Your task to perform on an android device: Open settings on Google Maps Image 0: 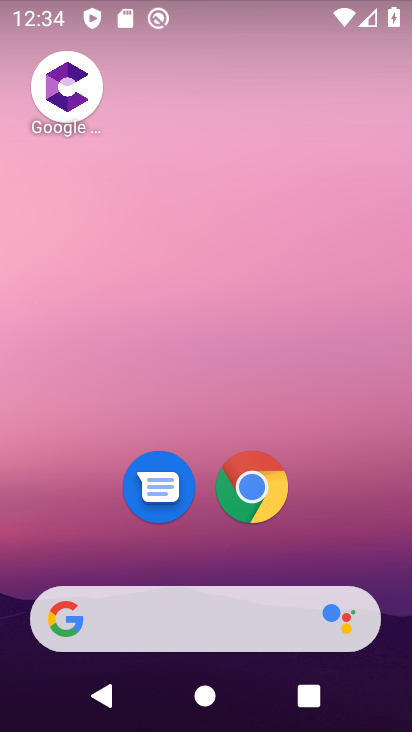
Step 0: drag from (199, 600) to (228, 121)
Your task to perform on an android device: Open settings on Google Maps Image 1: 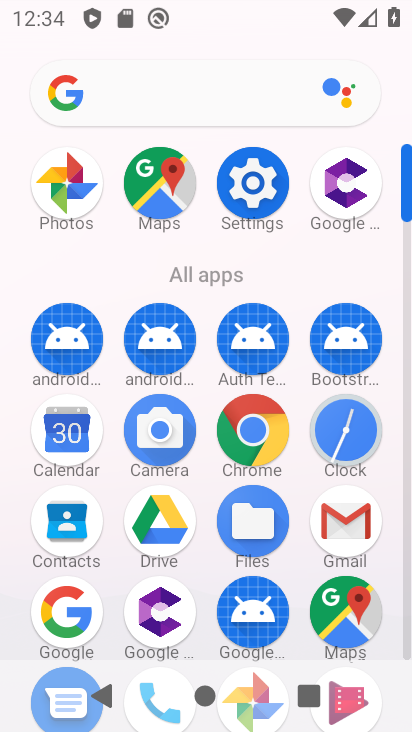
Step 1: click (162, 187)
Your task to perform on an android device: Open settings on Google Maps Image 2: 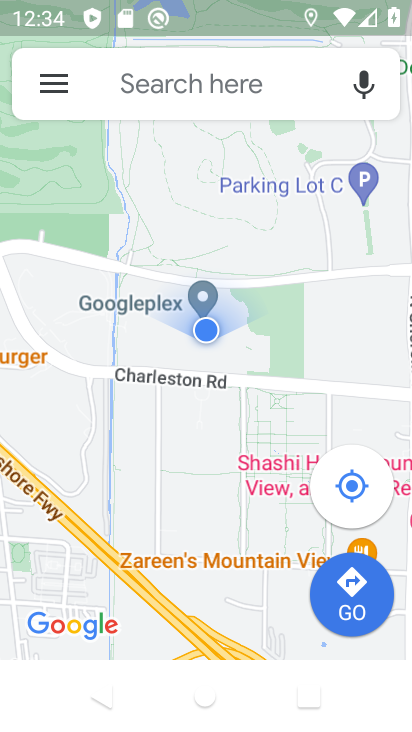
Step 2: click (43, 93)
Your task to perform on an android device: Open settings on Google Maps Image 3: 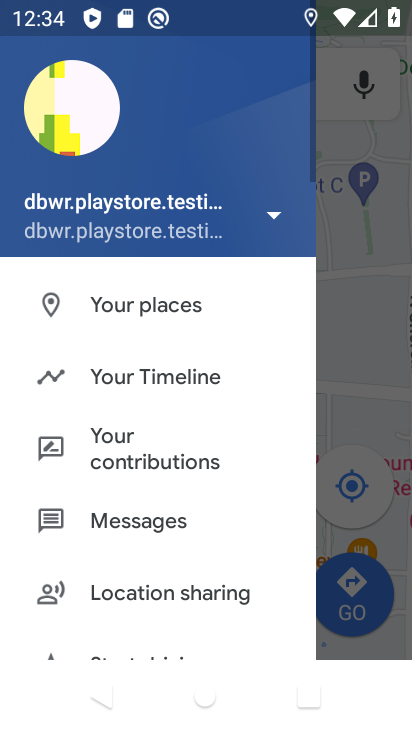
Step 3: drag from (153, 528) to (3, 347)
Your task to perform on an android device: Open settings on Google Maps Image 4: 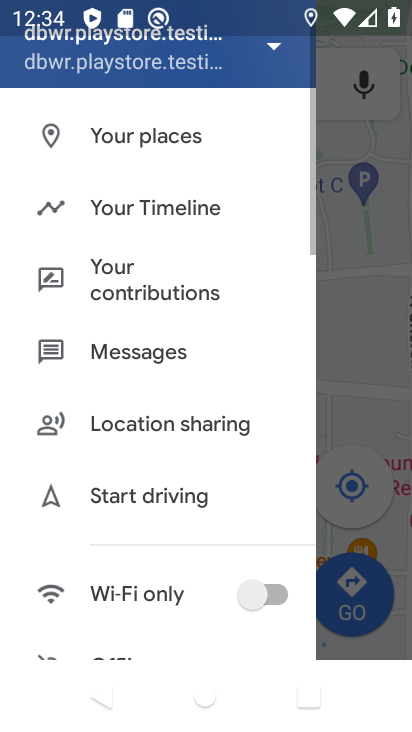
Step 4: drag from (111, 584) to (108, 8)
Your task to perform on an android device: Open settings on Google Maps Image 5: 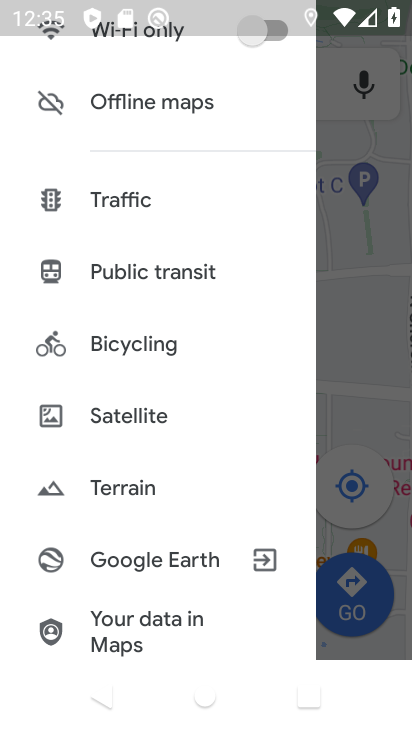
Step 5: drag from (123, 618) to (163, 3)
Your task to perform on an android device: Open settings on Google Maps Image 6: 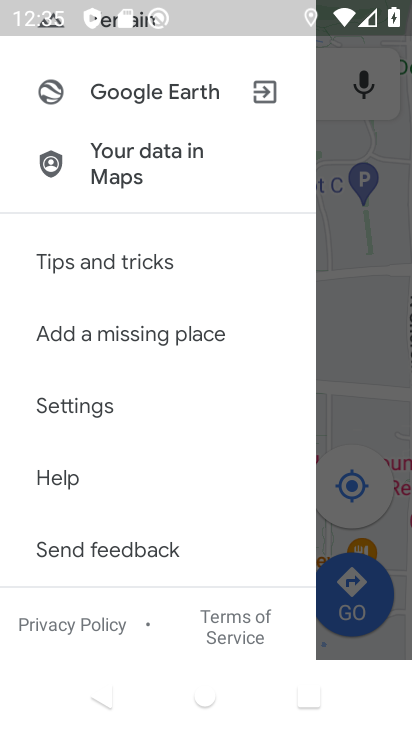
Step 6: click (82, 409)
Your task to perform on an android device: Open settings on Google Maps Image 7: 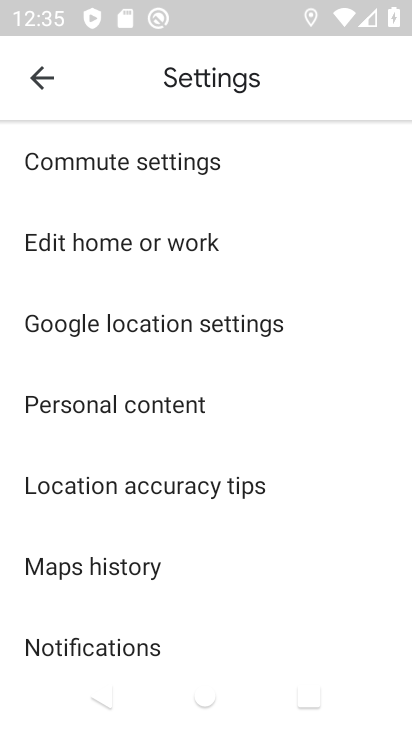
Step 7: task complete